Your task to perform on an android device: clear all cookies in the chrome app Image 0: 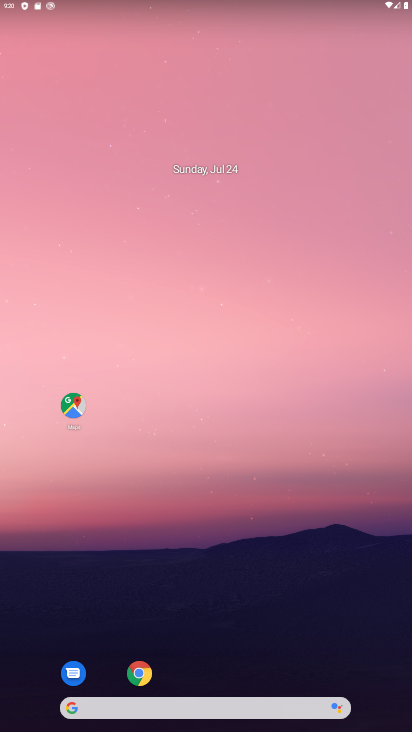
Step 0: click (146, 672)
Your task to perform on an android device: clear all cookies in the chrome app Image 1: 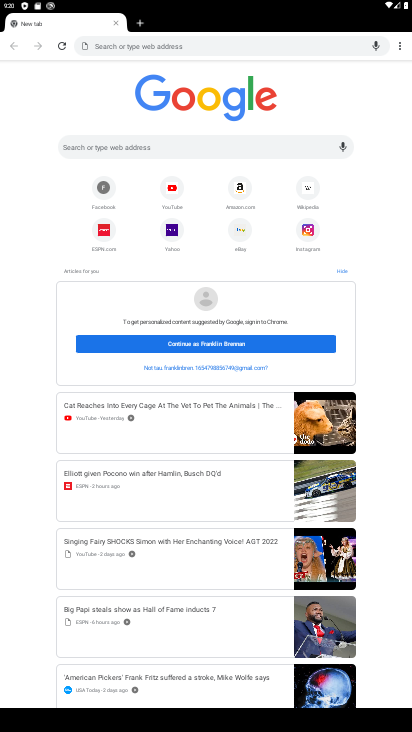
Step 1: click (399, 41)
Your task to perform on an android device: clear all cookies in the chrome app Image 2: 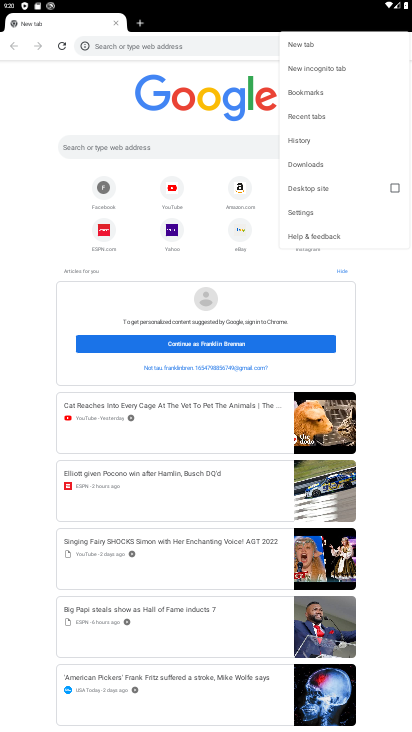
Step 2: click (300, 136)
Your task to perform on an android device: clear all cookies in the chrome app Image 3: 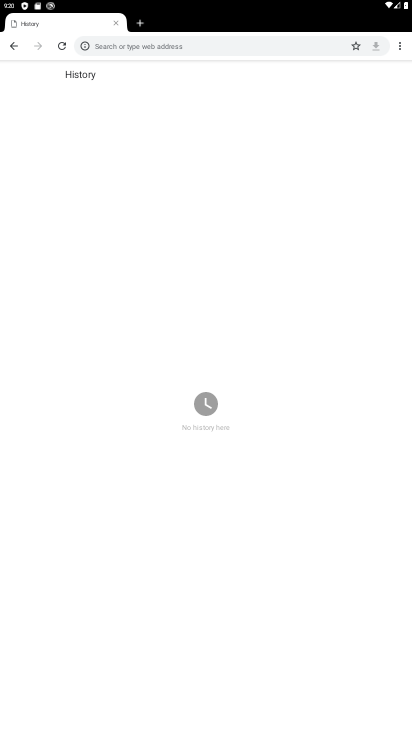
Step 3: task complete